Your task to perform on an android device: Go to Amazon Image 0: 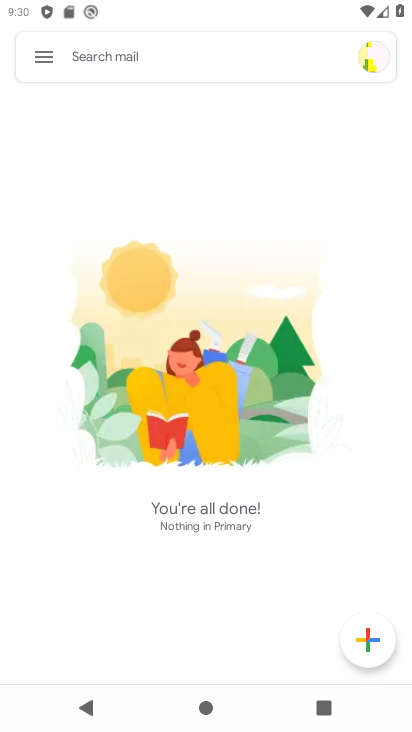
Step 0: press home button
Your task to perform on an android device: Go to Amazon Image 1: 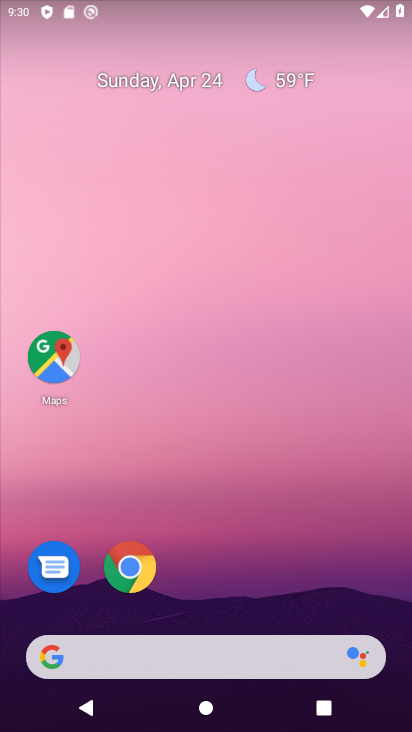
Step 1: click (134, 565)
Your task to perform on an android device: Go to Amazon Image 2: 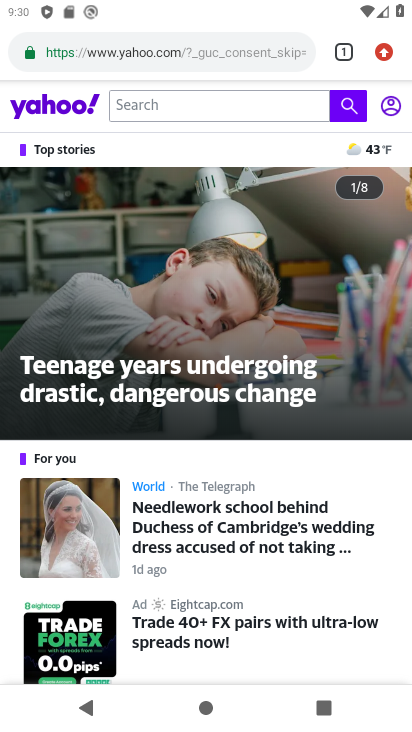
Step 2: click (168, 105)
Your task to perform on an android device: Go to Amazon Image 3: 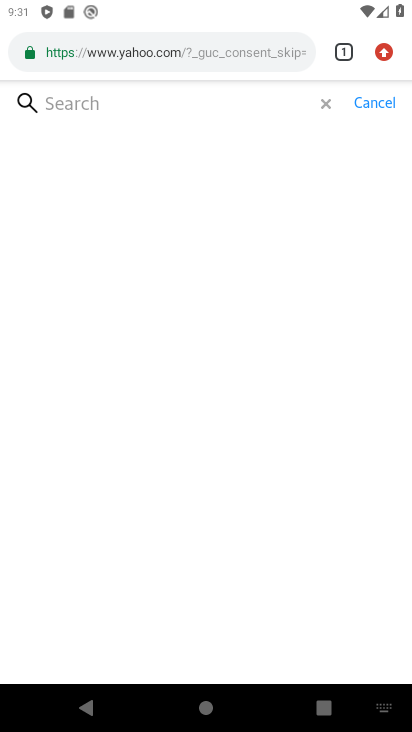
Step 3: type "Amazon"
Your task to perform on an android device: Go to Amazon Image 4: 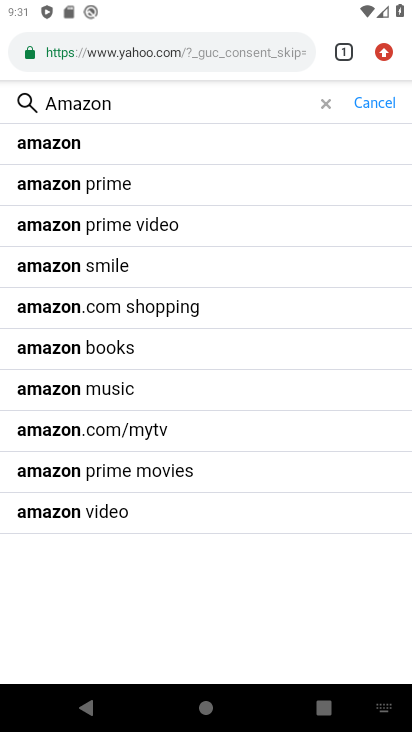
Step 4: click (55, 143)
Your task to perform on an android device: Go to Amazon Image 5: 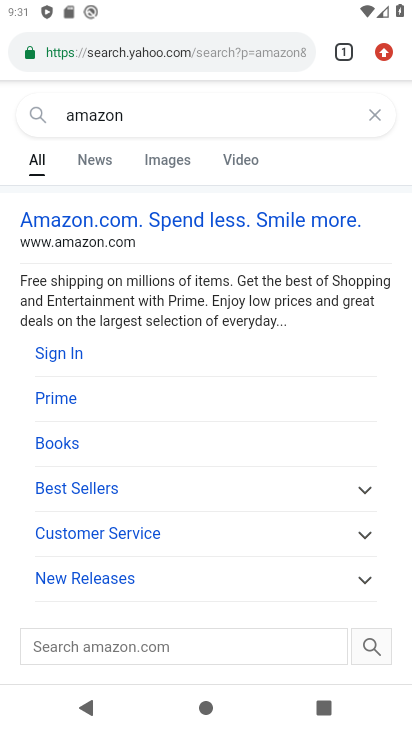
Step 5: task complete